Your task to perform on an android device: find photos in the google photos app Image 0: 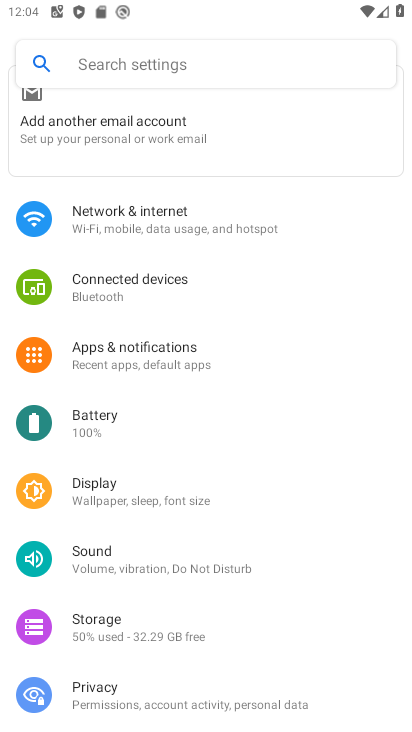
Step 0: press home button
Your task to perform on an android device: find photos in the google photos app Image 1: 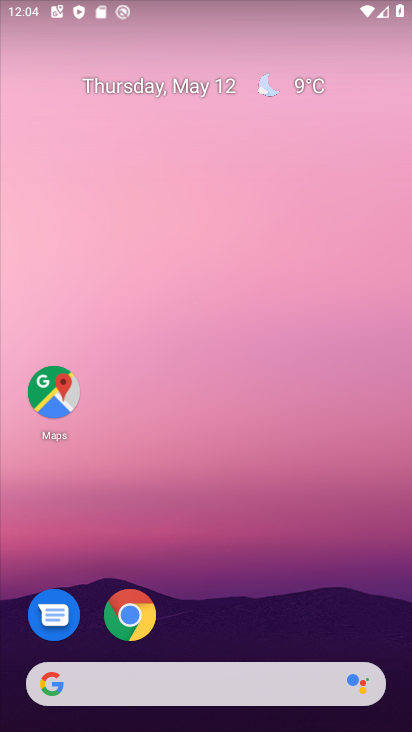
Step 1: drag from (255, 592) to (226, 176)
Your task to perform on an android device: find photos in the google photos app Image 2: 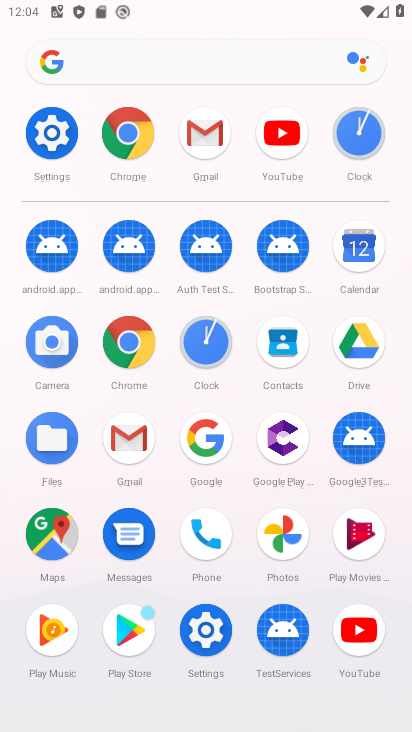
Step 2: click (293, 532)
Your task to perform on an android device: find photos in the google photos app Image 3: 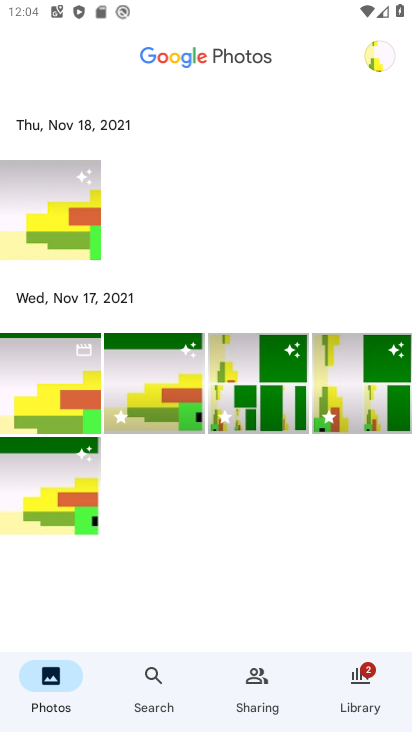
Step 3: task complete